Your task to perform on an android device: Open Wikipedia Image 0: 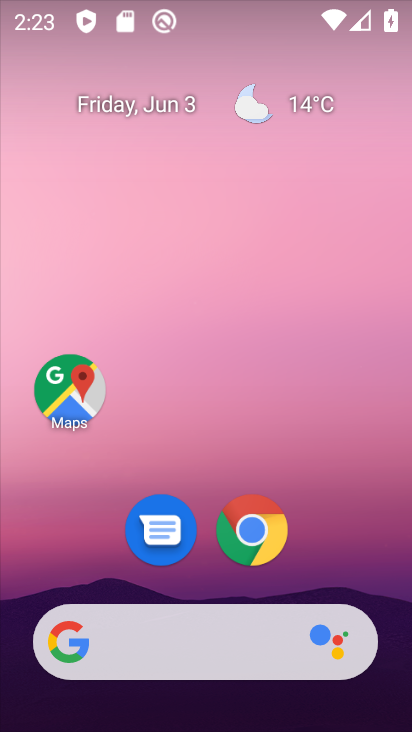
Step 0: click (239, 543)
Your task to perform on an android device: Open Wikipedia Image 1: 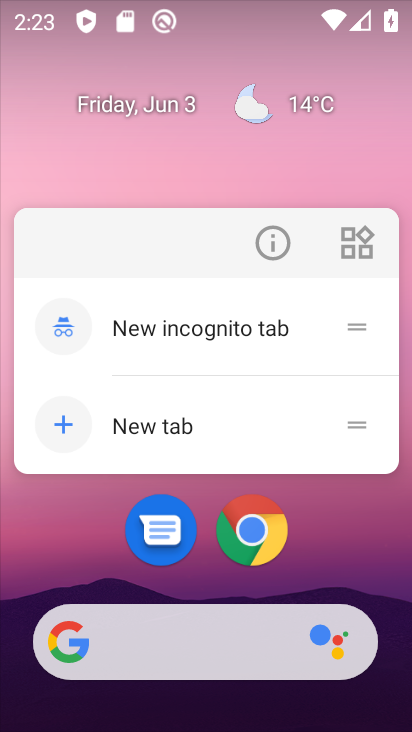
Step 1: click (253, 550)
Your task to perform on an android device: Open Wikipedia Image 2: 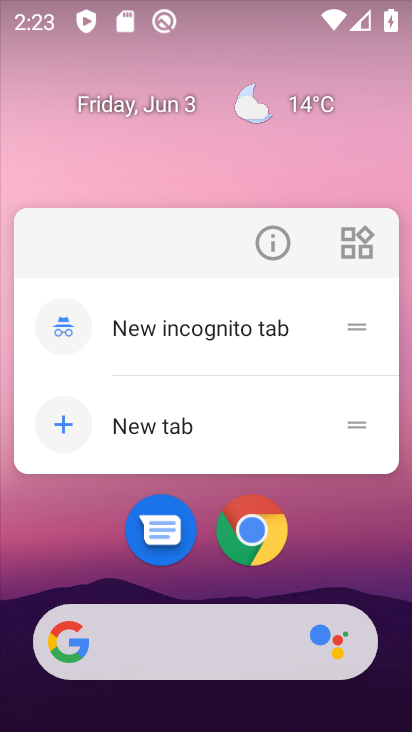
Step 2: click (259, 556)
Your task to perform on an android device: Open Wikipedia Image 3: 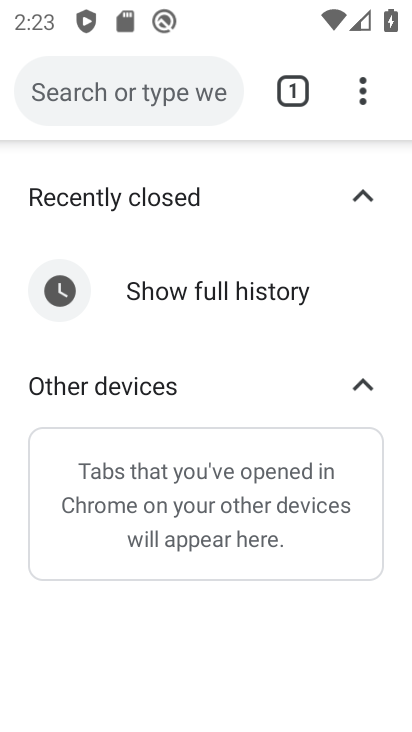
Step 3: drag from (371, 109) to (320, 206)
Your task to perform on an android device: Open Wikipedia Image 4: 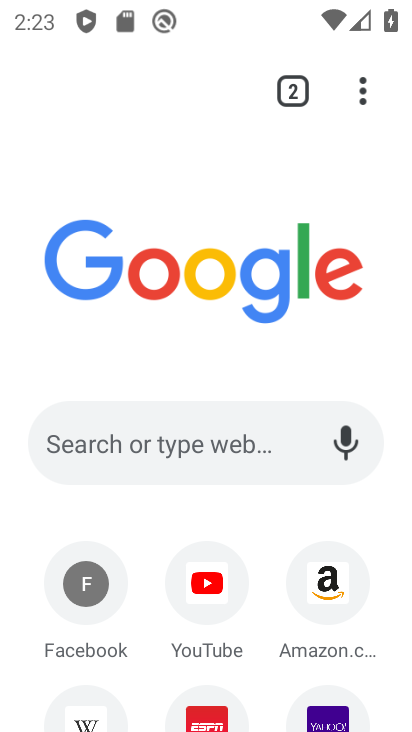
Step 4: drag from (221, 649) to (263, 383)
Your task to perform on an android device: Open Wikipedia Image 5: 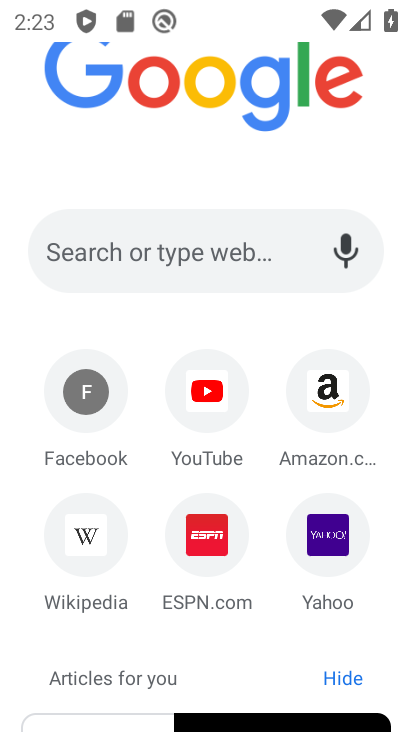
Step 5: click (61, 556)
Your task to perform on an android device: Open Wikipedia Image 6: 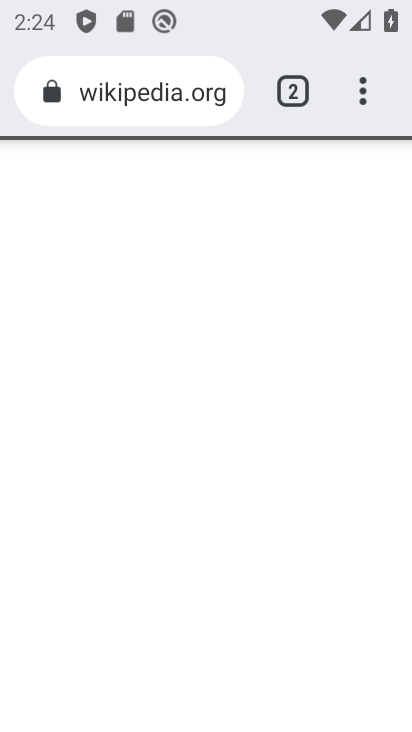
Step 6: task complete